Your task to perform on an android device: toggle sleep mode Image 0: 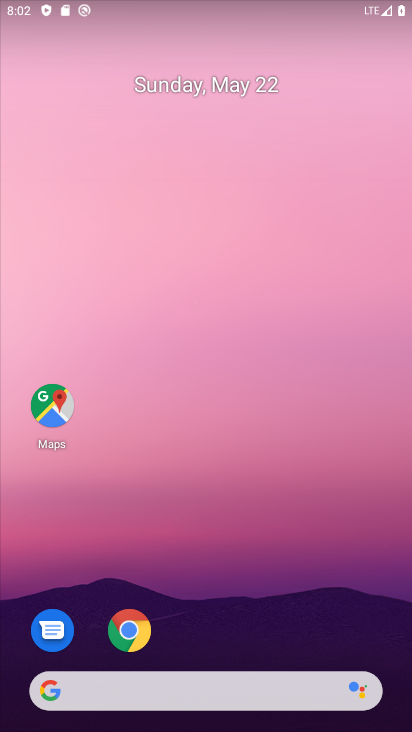
Step 0: drag from (257, 622) to (277, 107)
Your task to perform on an android device: toggle sleep mode Image 1: 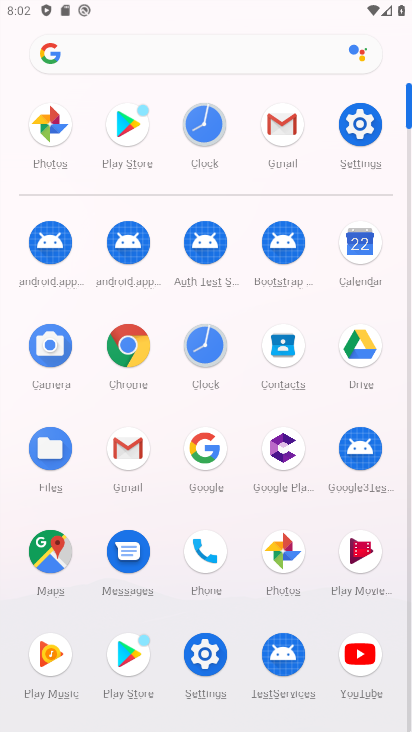
Step 1: click (350, 140)
Your task to perform on an android device: toggle sleep mode Image 2: 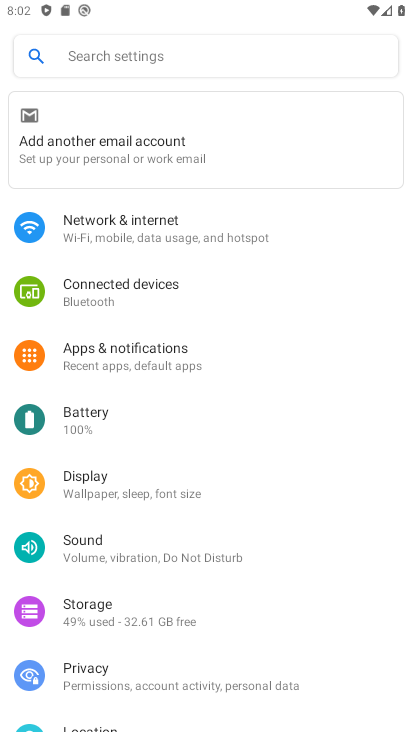
Step 2: click (142, 469)
Your task to perform on an android device: toggle sleep mode Image 3: 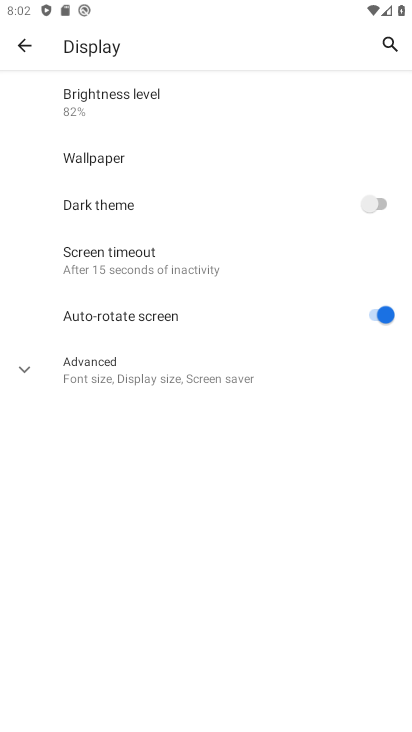
Step 3: click (188, 253)
Your task to perform on an android device: toggle sleep mode Image 4: 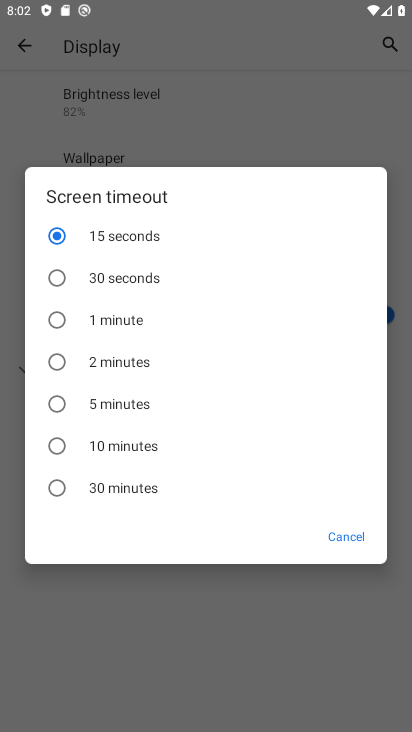
Step 4: click (206, 253)
Your task to perform on an android device: toggle sleep mode Image 5: 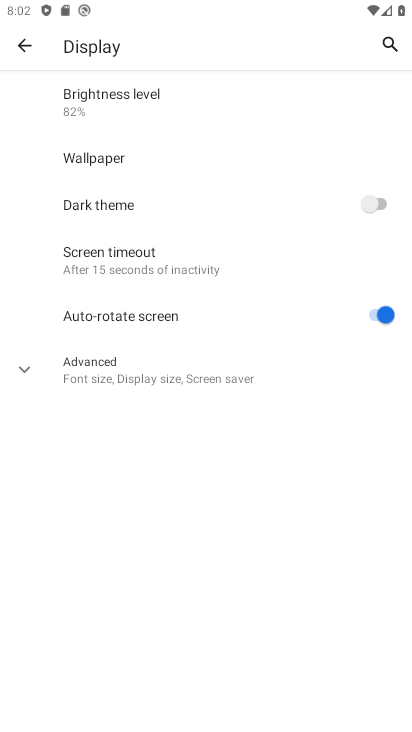
Step 5: task complete